Your task to perform on an android device: Open Chrome and go to settings Image 0: 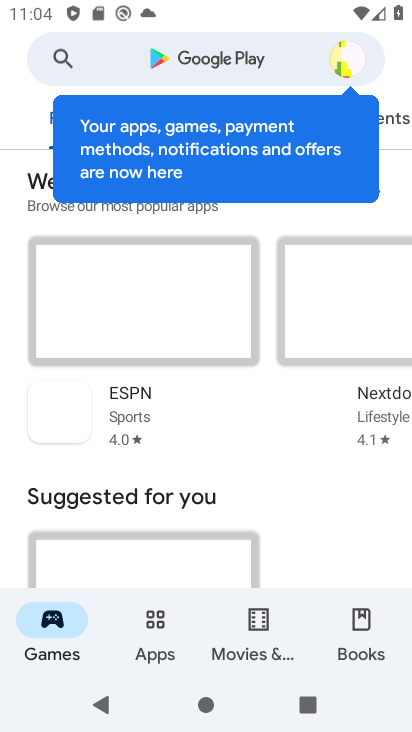
Step 0: press home button
Your task to perform on an android device: Open Chrome and go to settings Image 1: 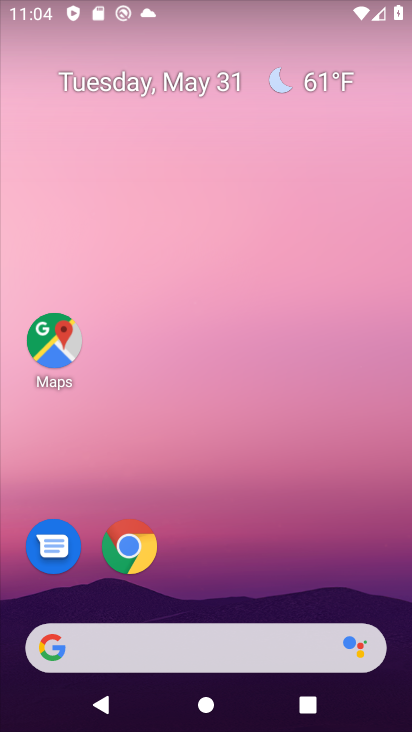
Step 1: click (133, 554)
Your task to perform on an android device: Open Chrome and go to settings Image 2: 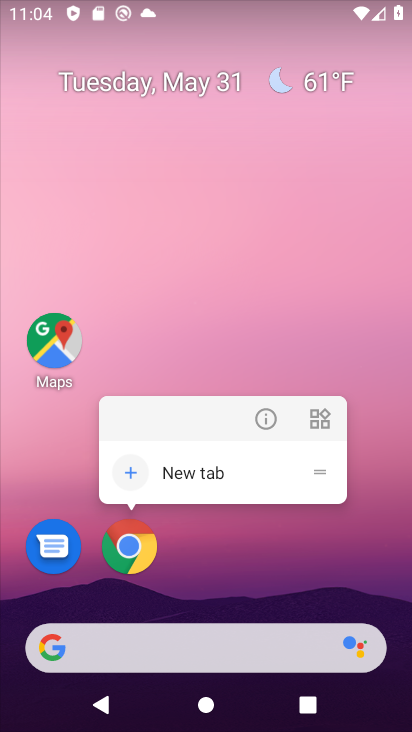
Step 2: click (134, 543)
Your task to perform on an android device: Open Chrome and go to settings Image 3: 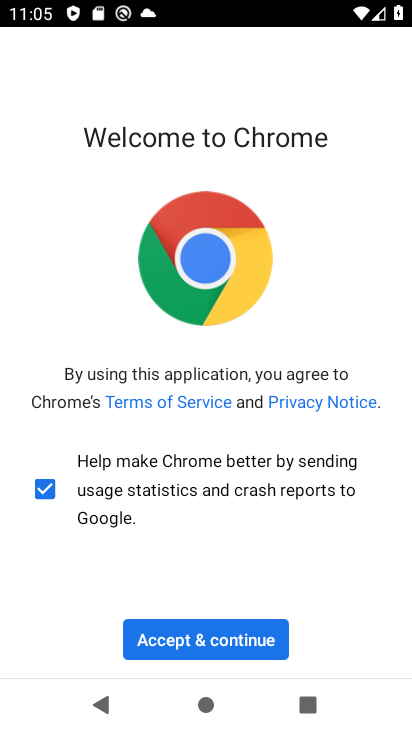
Step 3: click (229, 622)
Your task to perform on an android device: Open Chrome and go to settings Image 4: 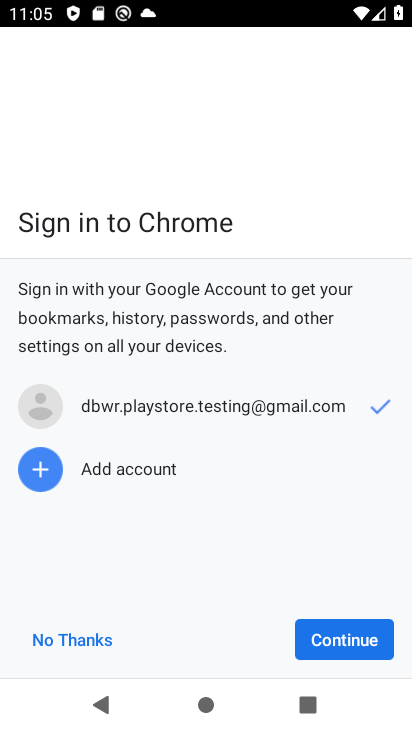
Step 4: click (331, 641)
Your task to perform on an android device: Open Chrome and go to settings Image 5: 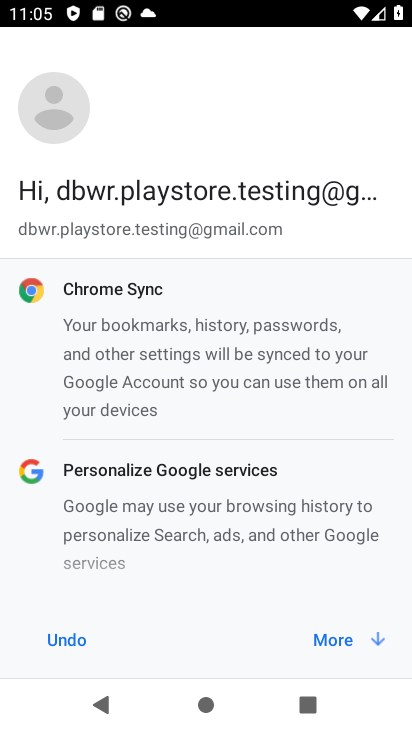
Step 5: click (370, 644)
Your task to perform on an android device: Open Chrome and go to settings Image 6: 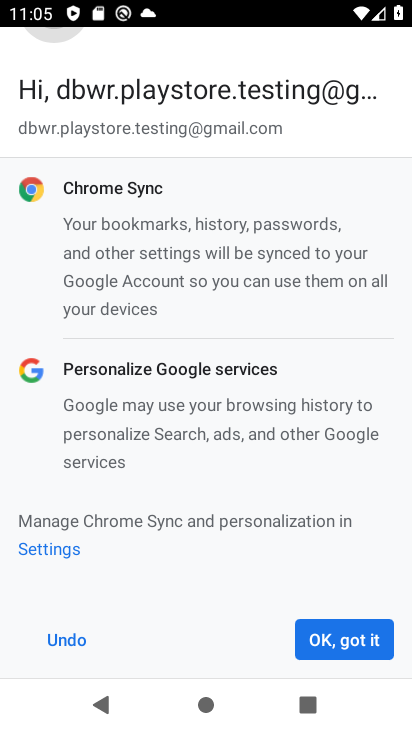
Step 6: click (368, 638)
Your task to perform on an android device: Open Chrome and go to settings Image 7: 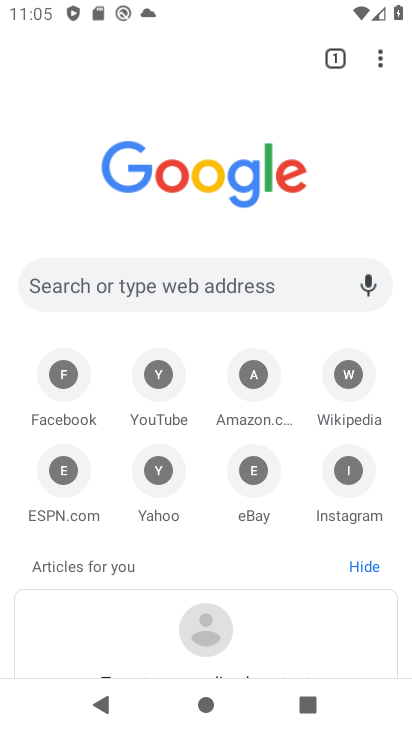
Step 7: click (380, 69)
Your task to perform on an android device: Open Chrome and go to settings Image 8: 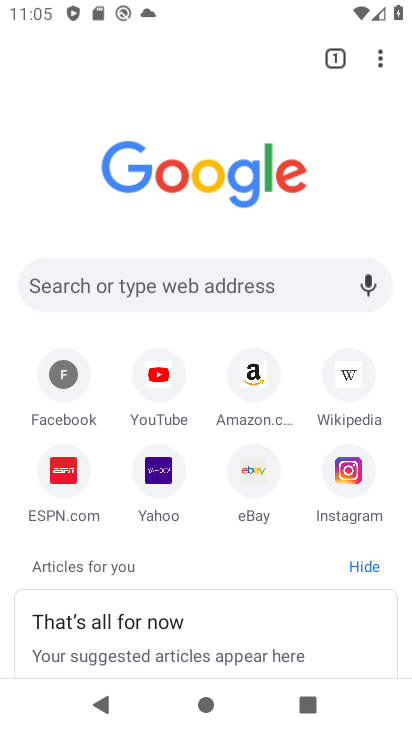
Step 8: task complete